Your task to perform on an android device: Show the shopping cart on walmart. Search for "usb-c to usb-b" on walmart, select the first entry, add it to the cart, then select checkout. Image 0: 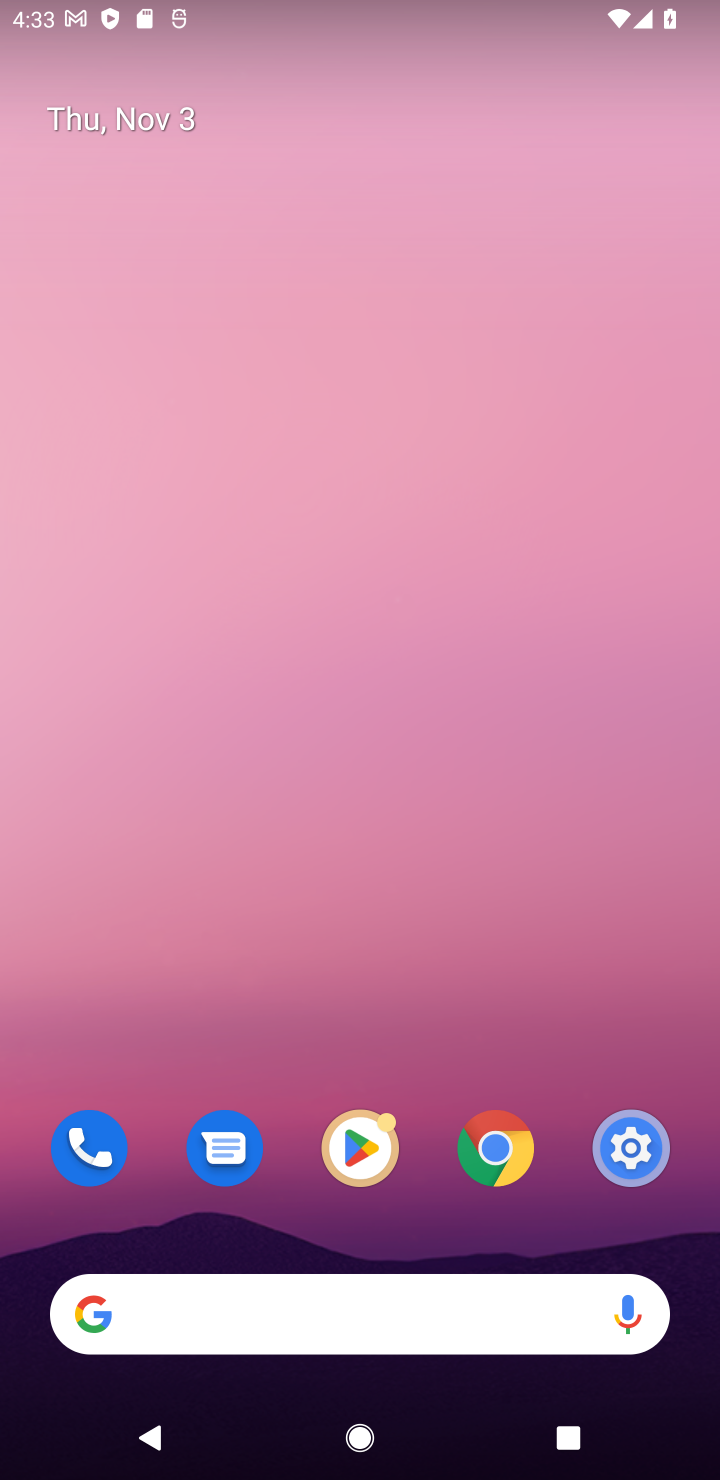
Step 0: click (307, 1338)
Your task to perform on an android device: Show the shopping cart on walmart. Search for "usb-c to usb-b" on walmart, select the first entry, add it to the cart, then select checkout. Image 1: 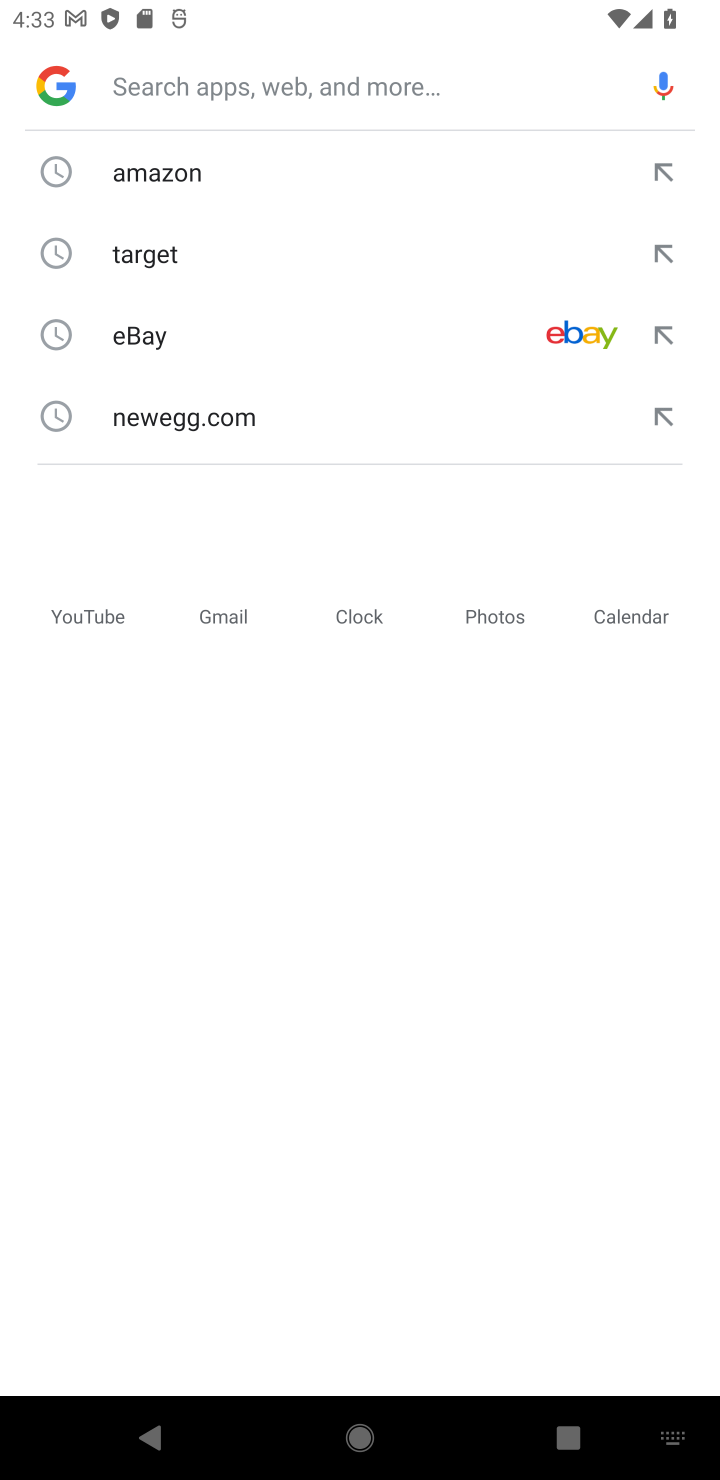
Step 1: type "walmart"
Your task to perform on an android device: Show the shopping cart on walmart. Search for "usb-c to usb-b" on walmart, select the first entry, add it to the cart, then select checkout. Image 2: 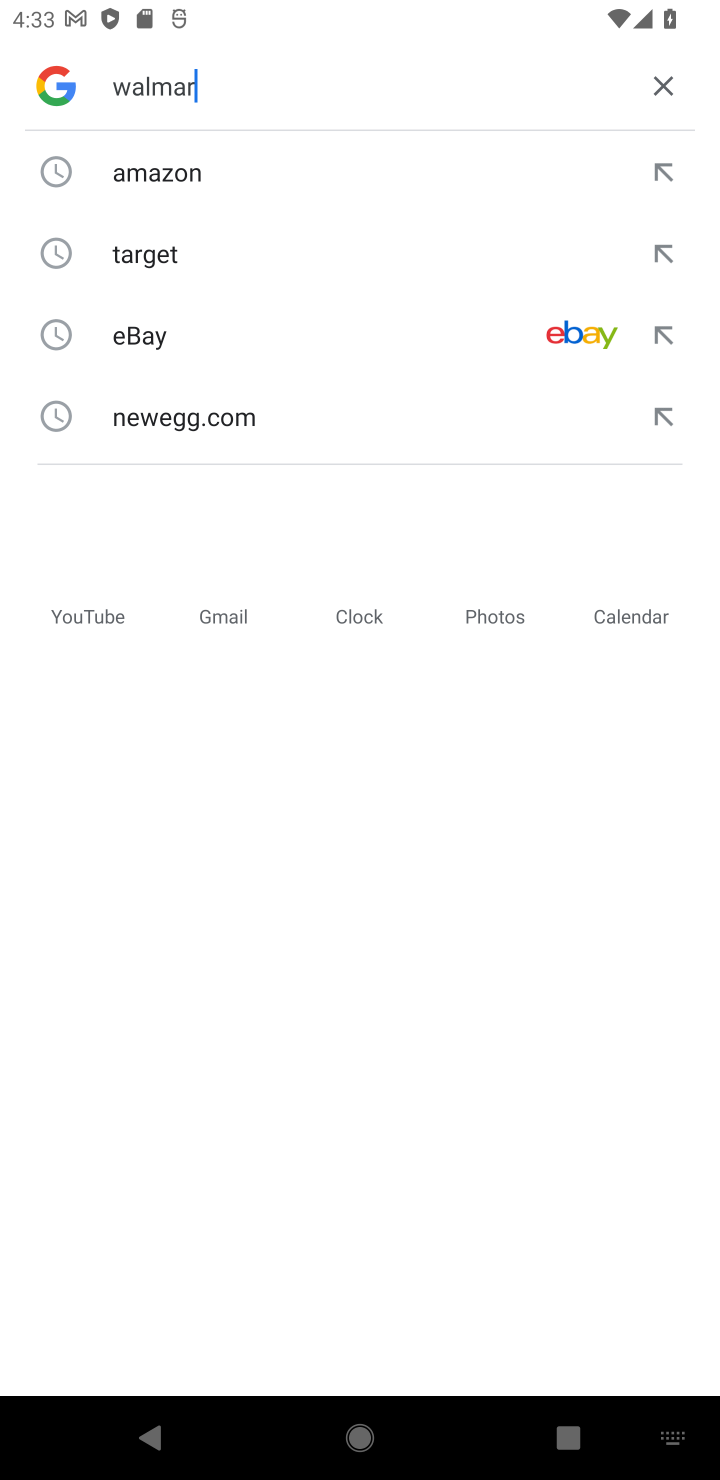
Step 2: type ""
Your task to perform on an android device: Show the shopping cart on walmart. Search for "usb-c to usb-b" on walmart, select the first entry, add it to the cart, then select checkout. Image 3: 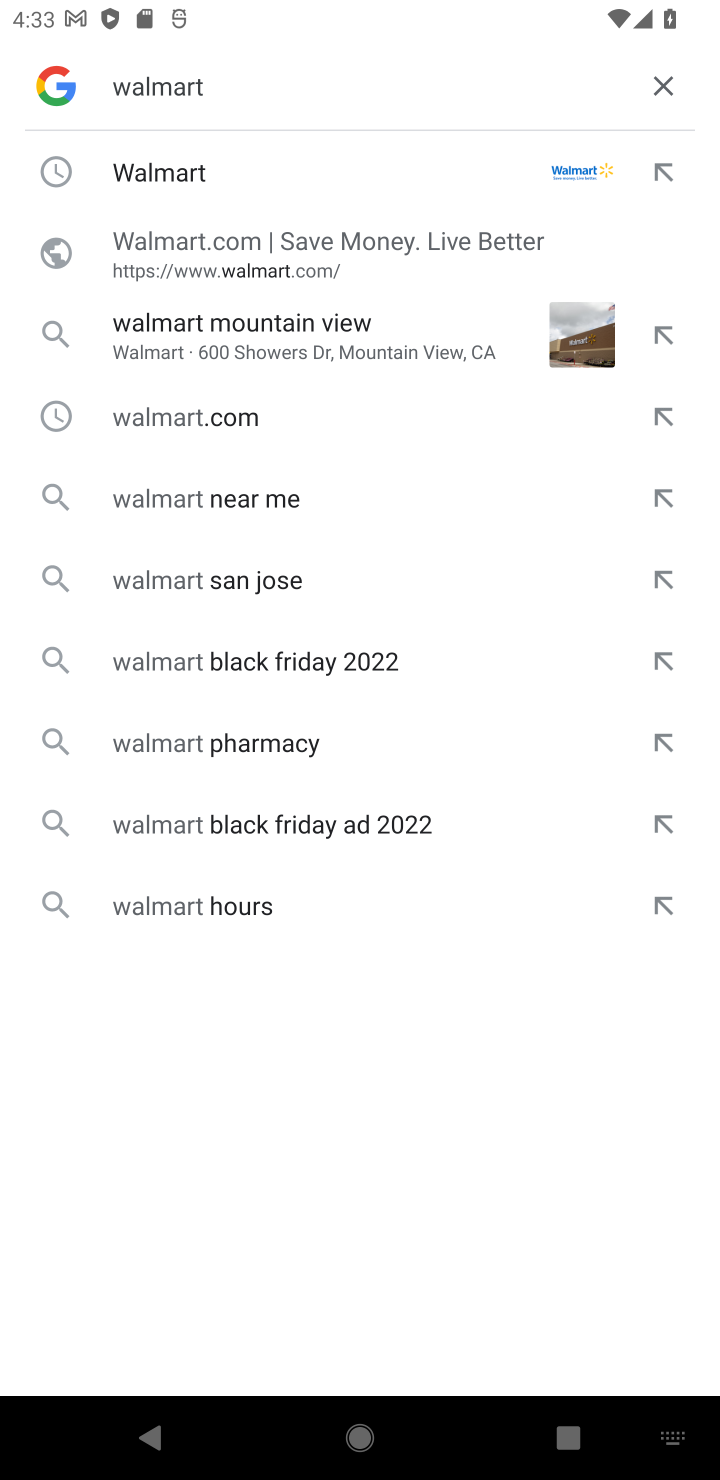
Step 3: click (296, 168)
Your task to perform on an android device: Show the shopping cart on walmart. Search for "usb-c to usb-b" on walmart, select the first entry, add it to the cart, then select checkout. Image 4: 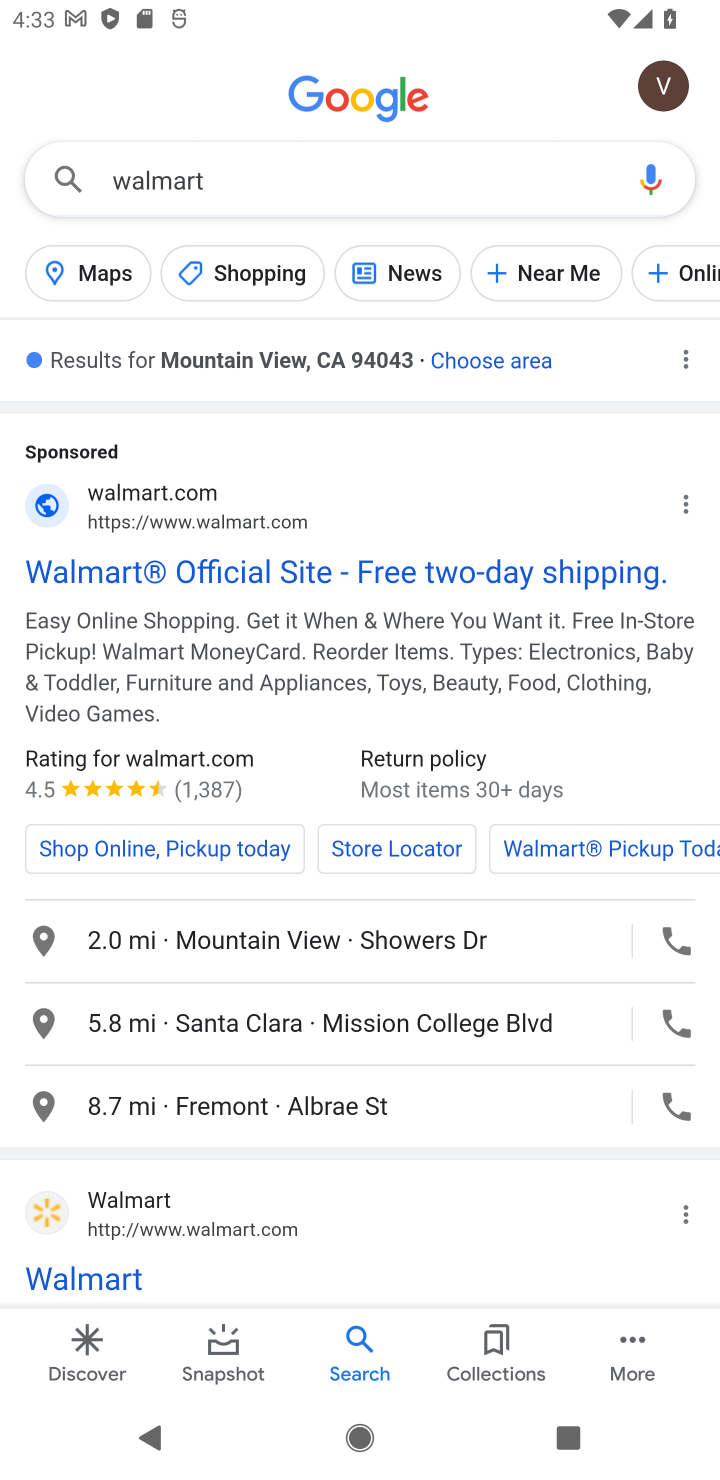
Step 4: click (209, 511)
Your task to perform on an android device: Show the shopping cart on walmart. Search for "usb-c to usb-b" on walmart, select the first entry, add it to the cart, then select checkout. Image 5: 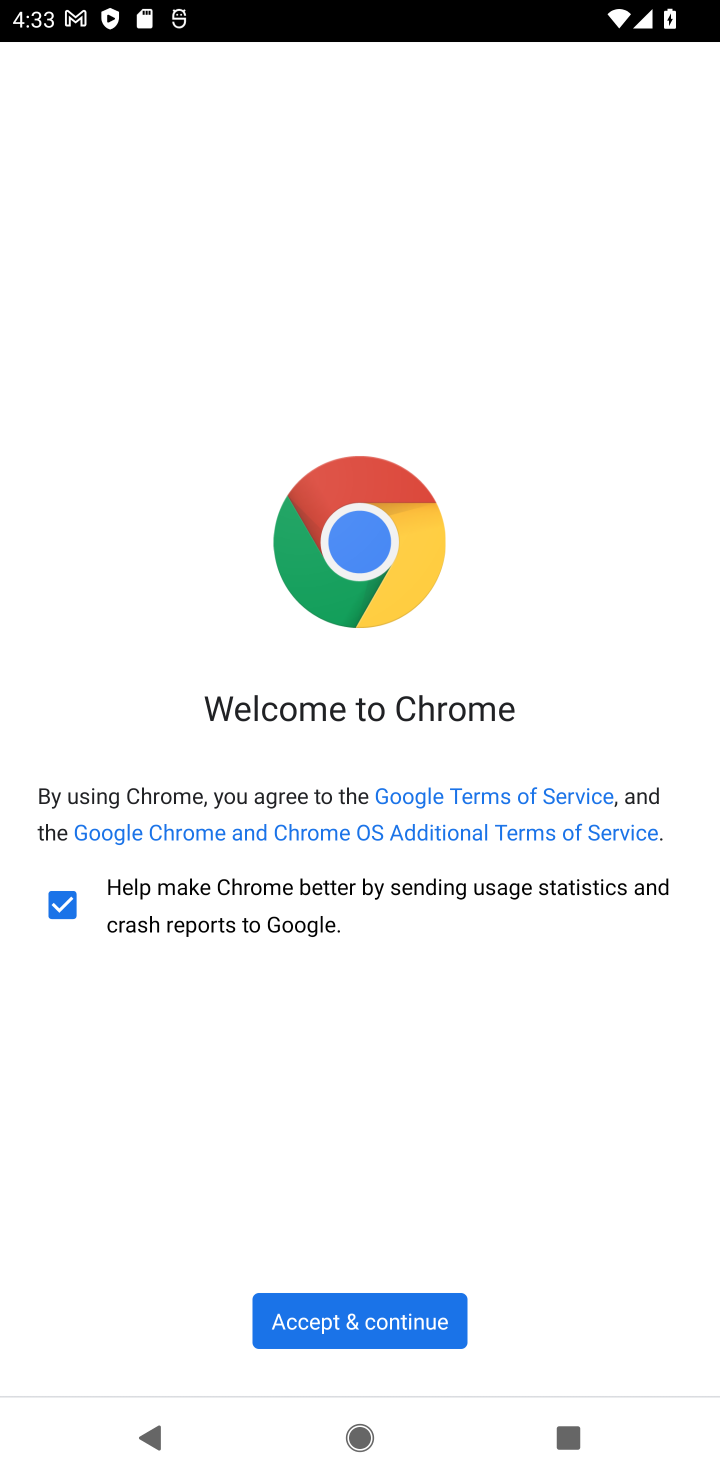
Step 5: click (409, 1328)
Your task to perform on an android device: Show the shopping cart on walmart. Search for "usb-c to usb-b" on walmart, select the first entry, add it to the cart, then select checkout. Image 6: 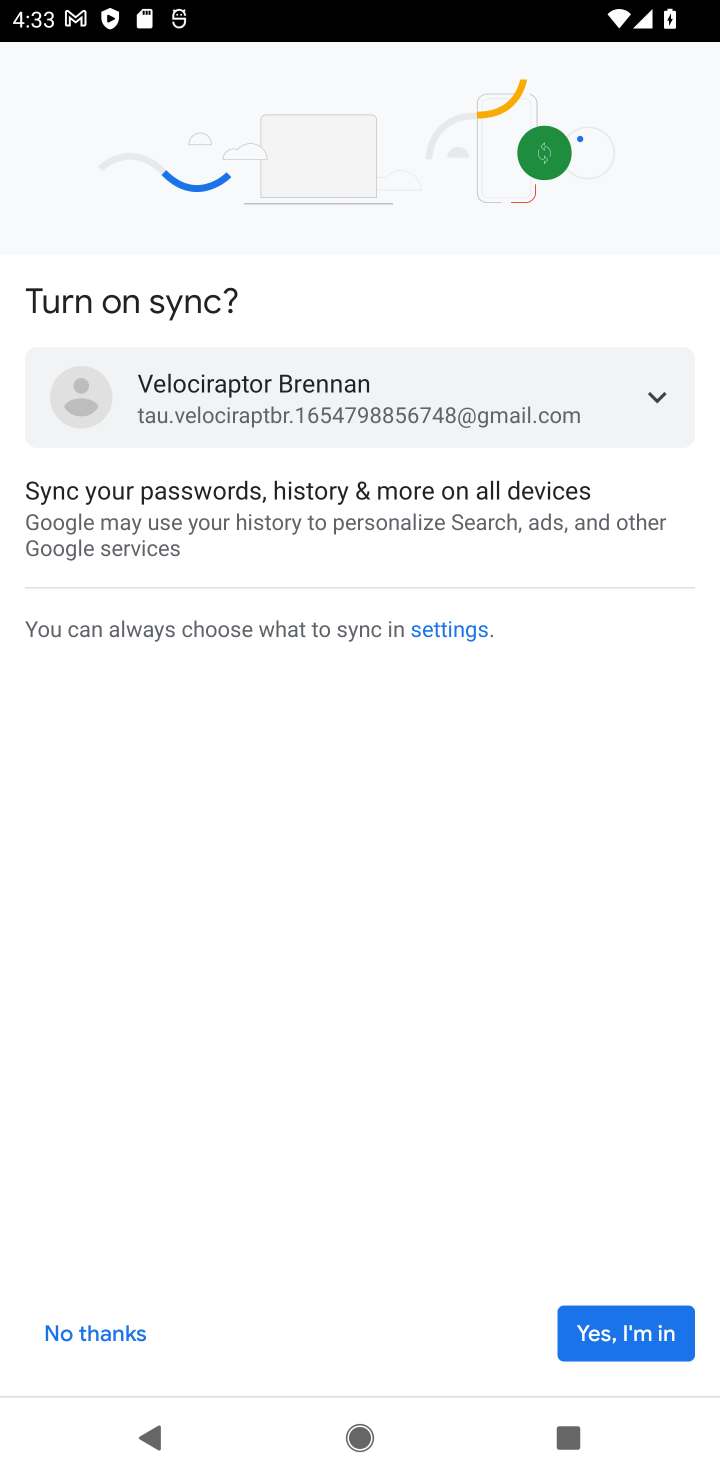
Step 6: click (618, 1319)
Your task to perform on an android device: Show the shopping cart on walmart. Search for "usb-c to usb-b" on walmart, select the first entry, add it to the cart, then select checkout. Image 7: 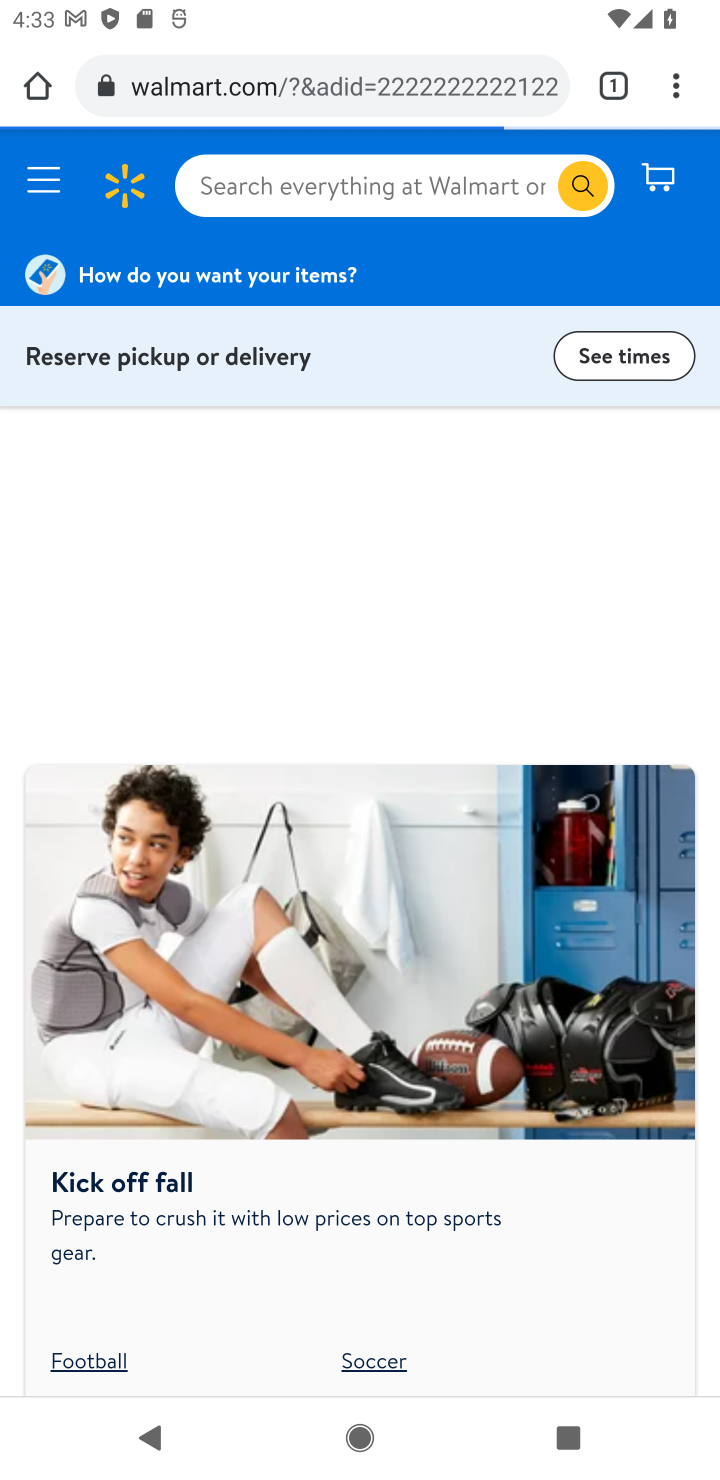
Step 7: click (251, 158)
Your task to perform on an android device: Show the shopping cart on walmart. Search for "usb-c to usb-b" on walmart, select the first entry, add it to the cart, then select checkout. Image 8: 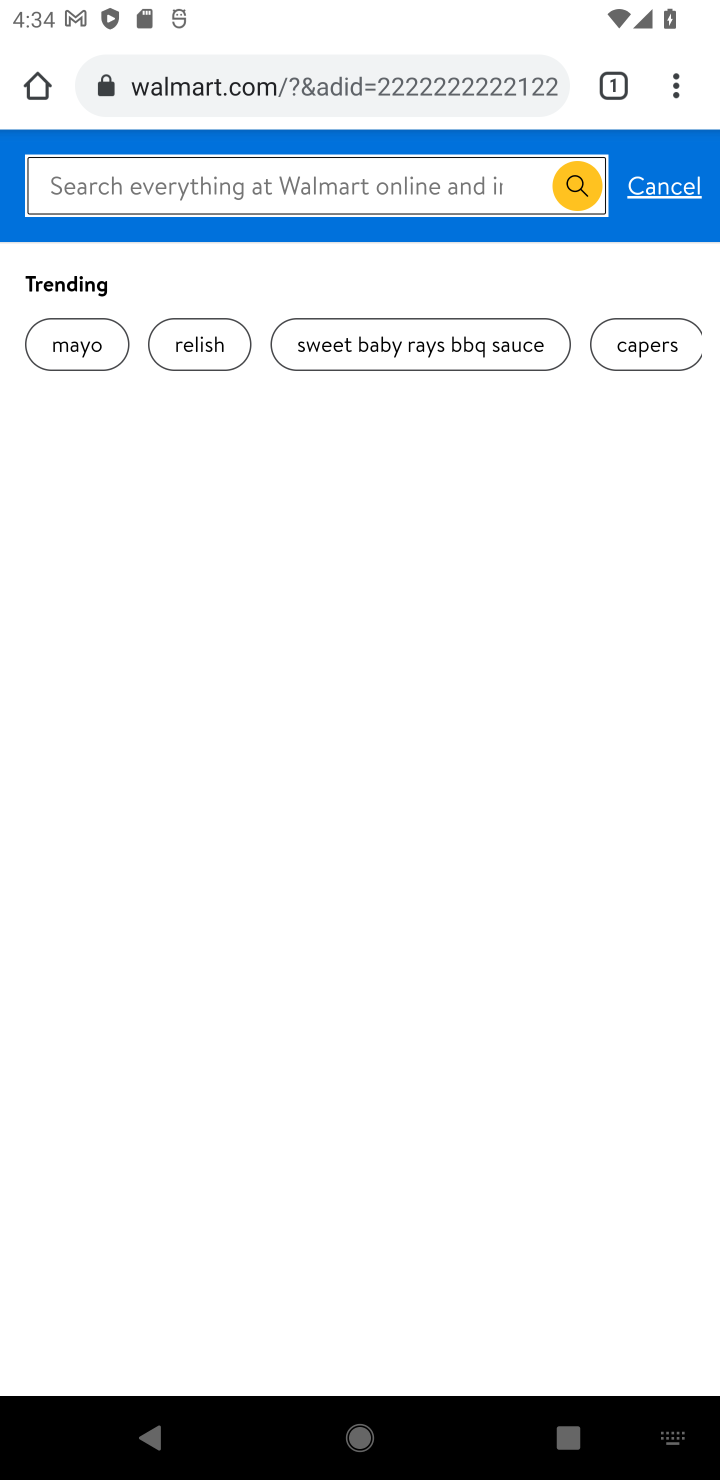
Step 8: type "usb-c to usb-b"
Your task to perform on an android device: Show the shopping cart on walmart. Search for "usb-c to usb-b" on walmart, select the first entry, add it to the cart, then select checkout. Image 9: 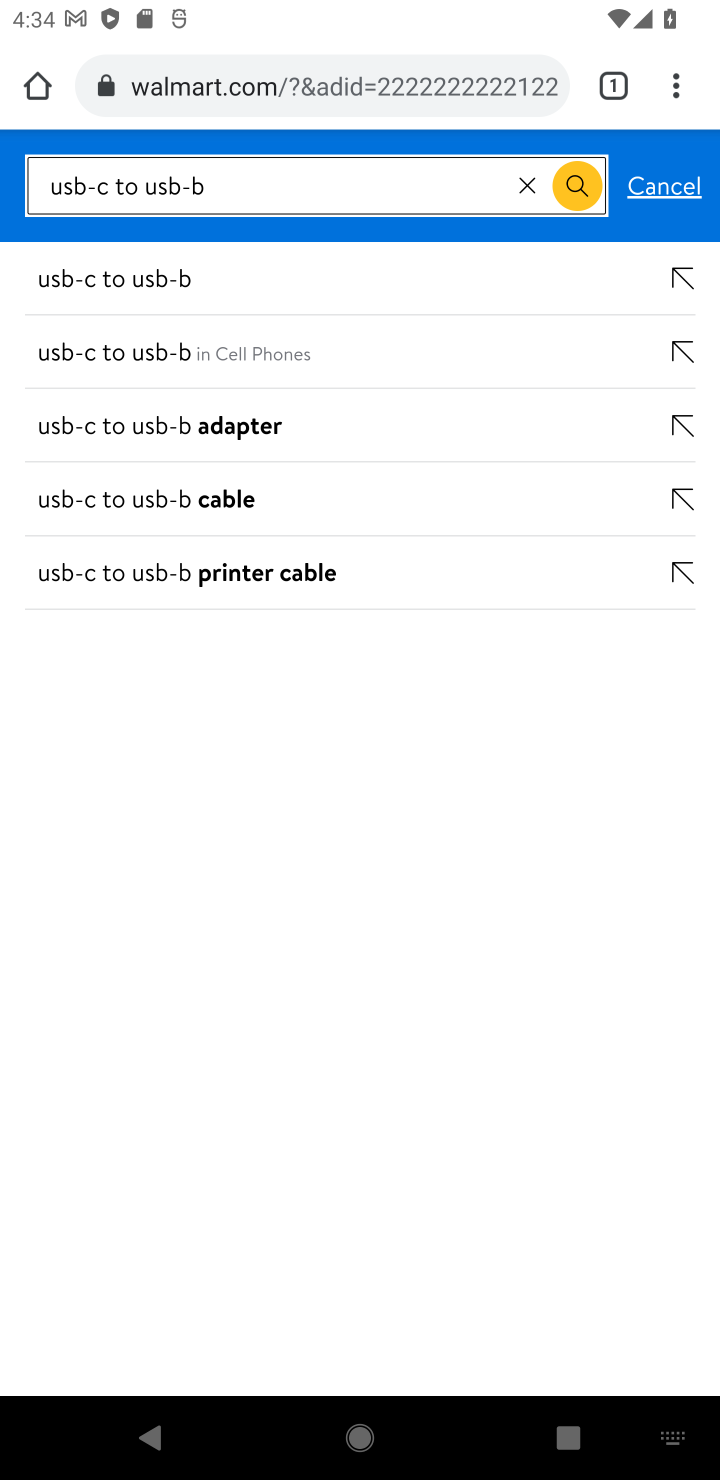
Step 9: click (179, 264)
Your task to perform on an android device: Show the shopping cart on walmart. Search for "usb-c to usb-b" on walmart, select the first entry, add it to the cart, then select checkout. Image 10: 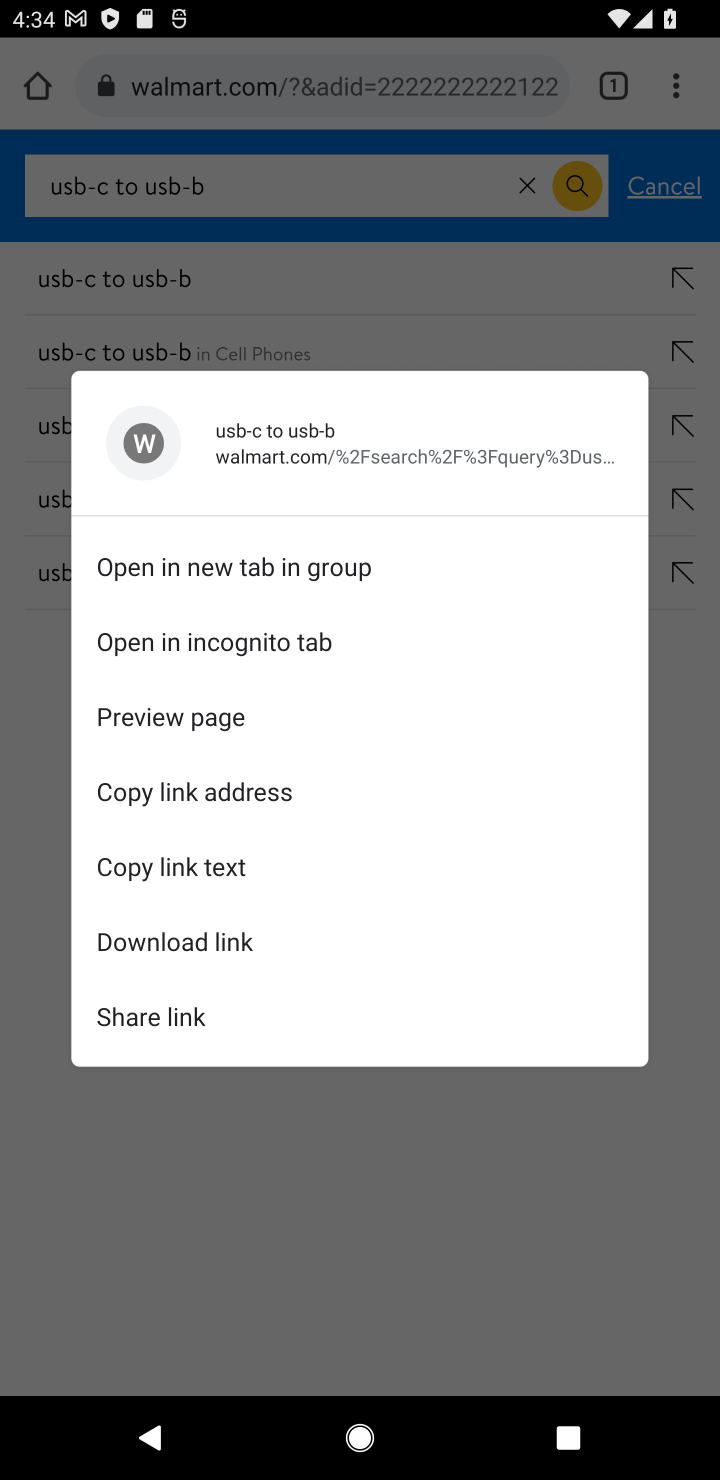
Step 10: click (511, 1301)
Your task to perform on an android device: Show the shopping cart on walmart. Search for "usb-c to usb-b" on walmart, select the first entry, add it to the cart, then select checkout. Image 11: 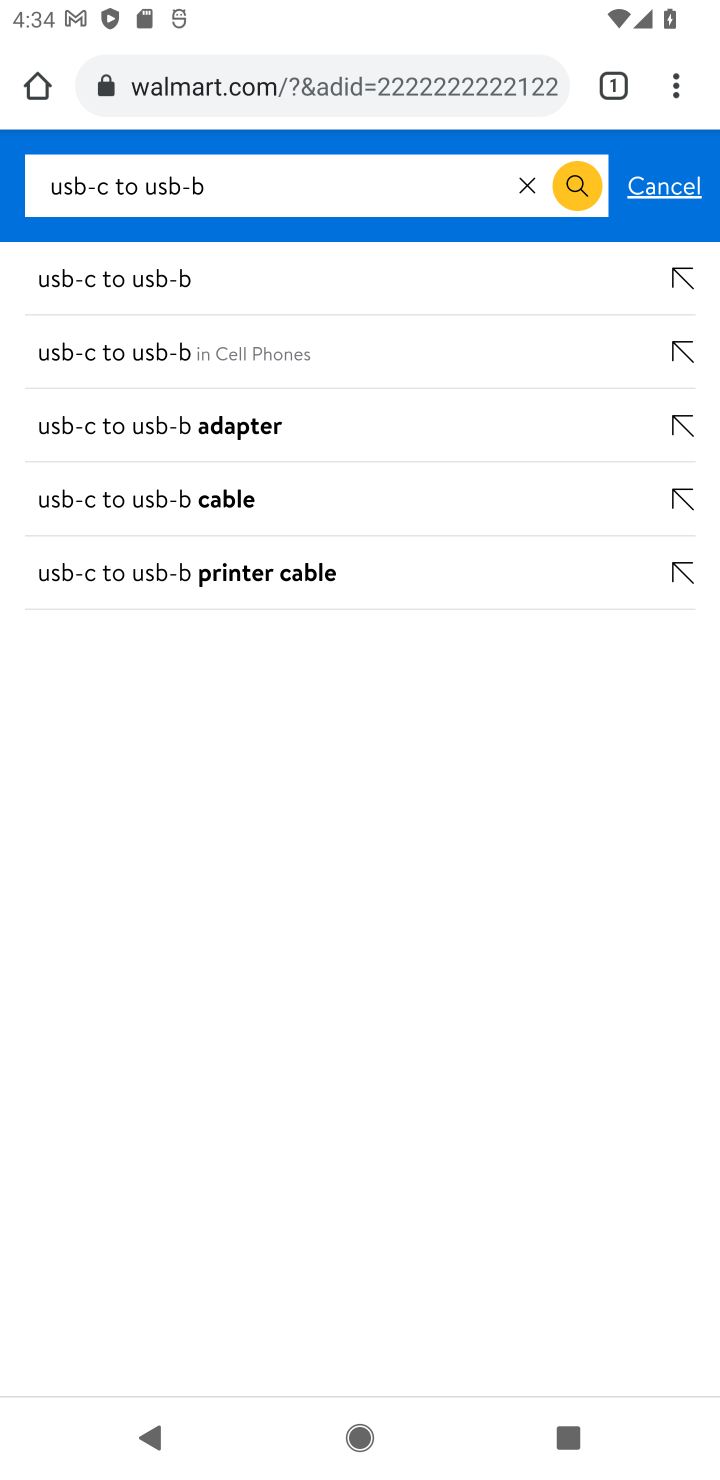
Step 11: click (93, 286)
Your task to perform on an android device: Show the shopping cart on walmart. Search for "usb-c to usb-b" on walmart, select the first entry, add it to the cart, then select checkout. Image 12: 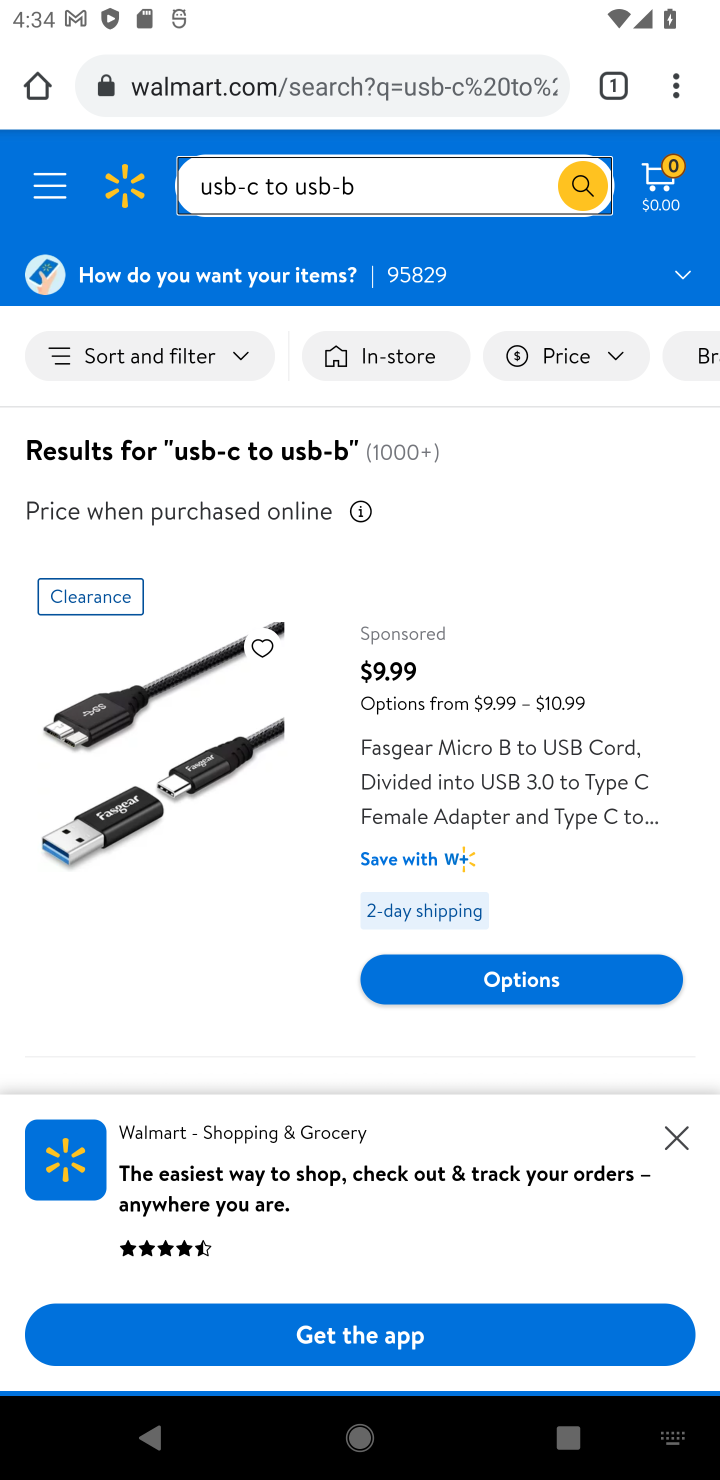
Step 12: drag from (518, 865) to (515, 627)
Your task to perform on an android device: Show the shopping cart on walmart. Search for "usb-c to usb-b" on walmart, select the first entry, add it to the cart, then select checkout. Image 13: 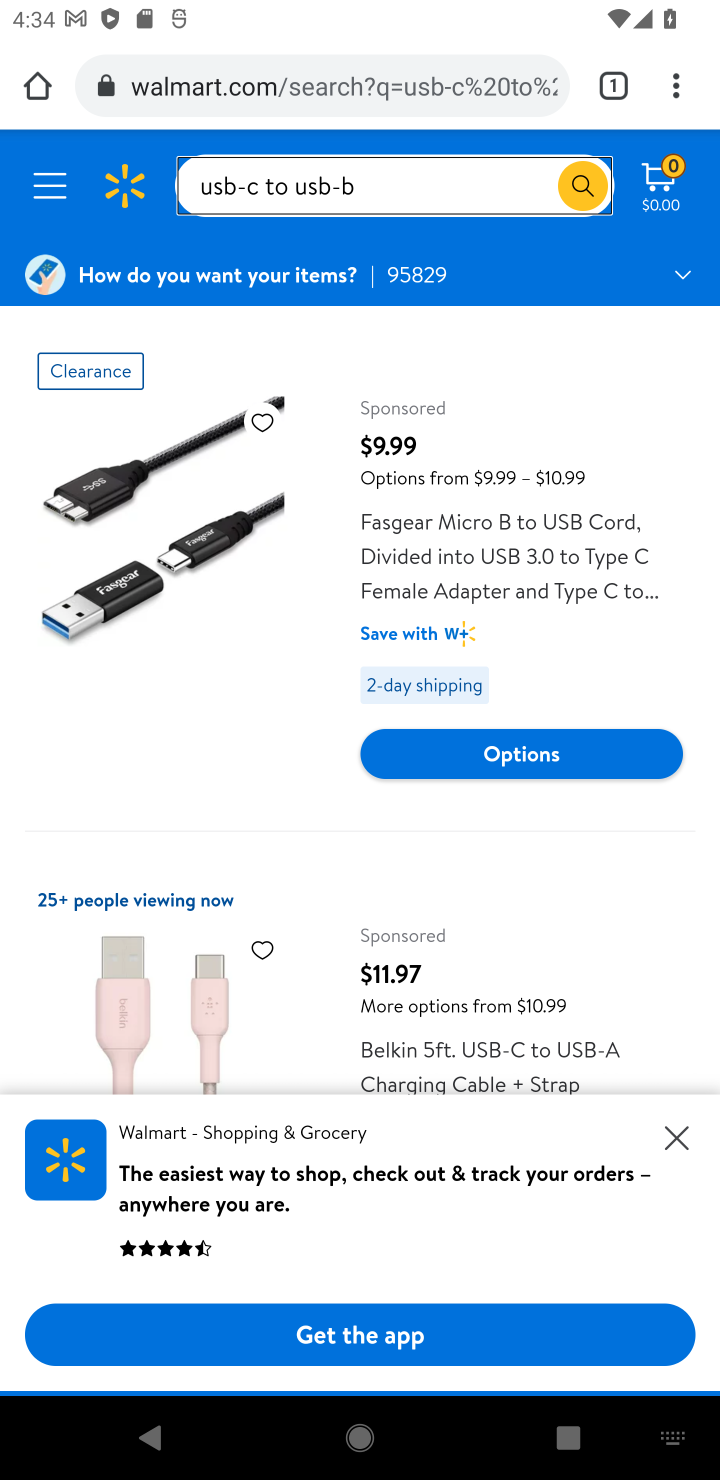
Step 13: click (552, 638)
Your task to perform on an android device: Show the shopping cart on walmart. Search for "usb-c to usb-b" on walmart, select the first entry, add it to the cart, then select checkout. Image 14: 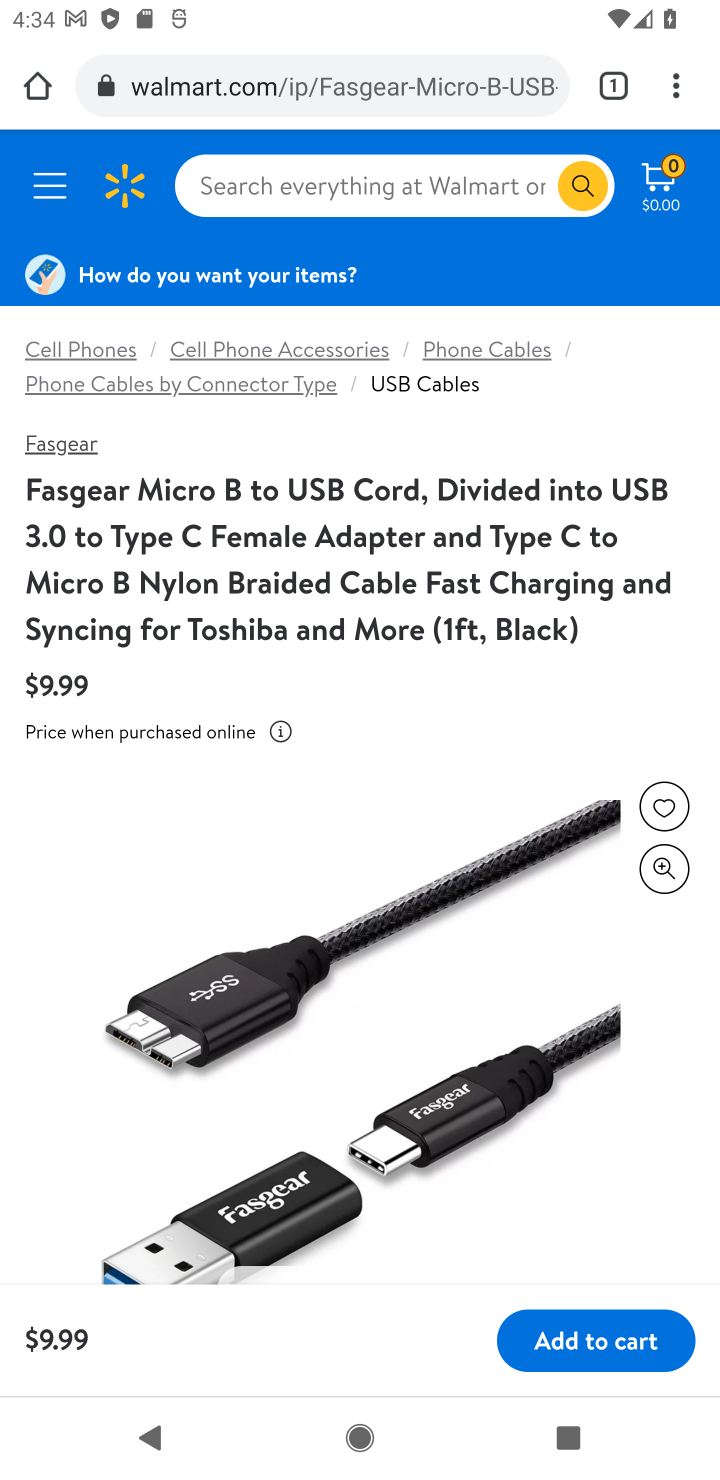
Step 14: drag from (445, 1152) to (445, 914)
Your task to perform on an android device: Show the shopping cart on walmart. Search for "usb-c to usb-b" on walmart, select the first entry, add it to the cart, then select checkout. Image 15: 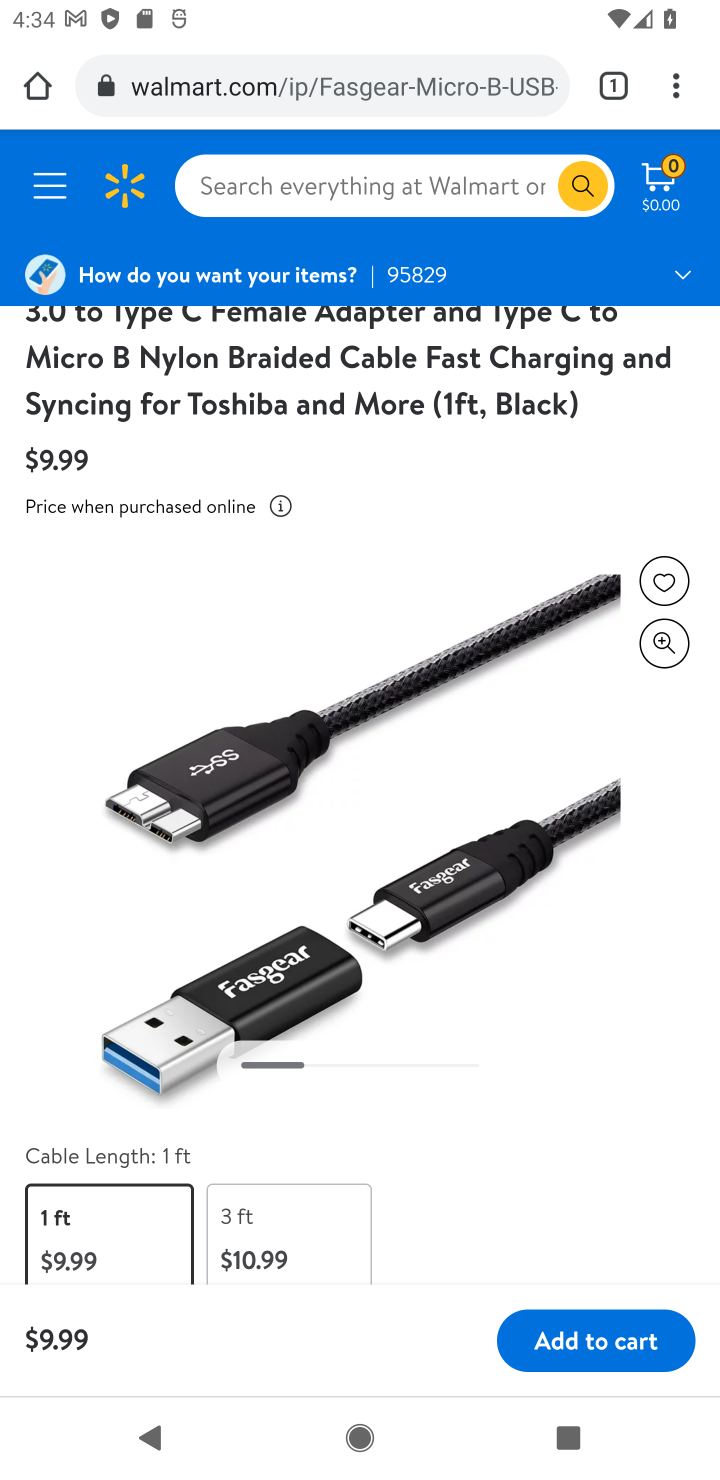
Step 15: click (593, 1343)
Your task to perform on an android device: Show the shopping cart on walmart. Search for "usb-c to usb-b" on walmart, select the first entry, add it to the cart, then select checkout. Image 16: 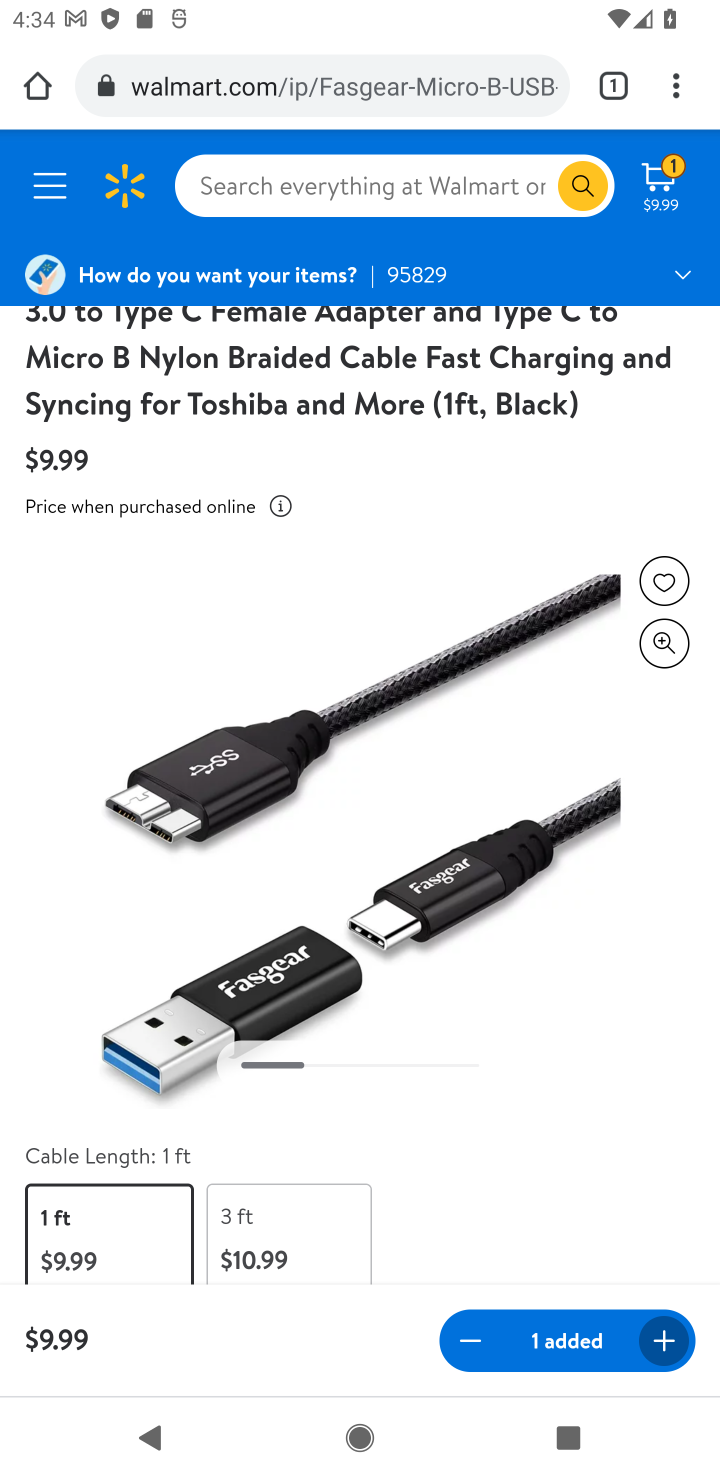
Step 16: click (662, 187)
Your task to perform on an android device: Show the shopping cart on walmart. Search for "usb-c to usb-b" on walmart, select the first entry, add it to the cart, then select checkout. Image 17: 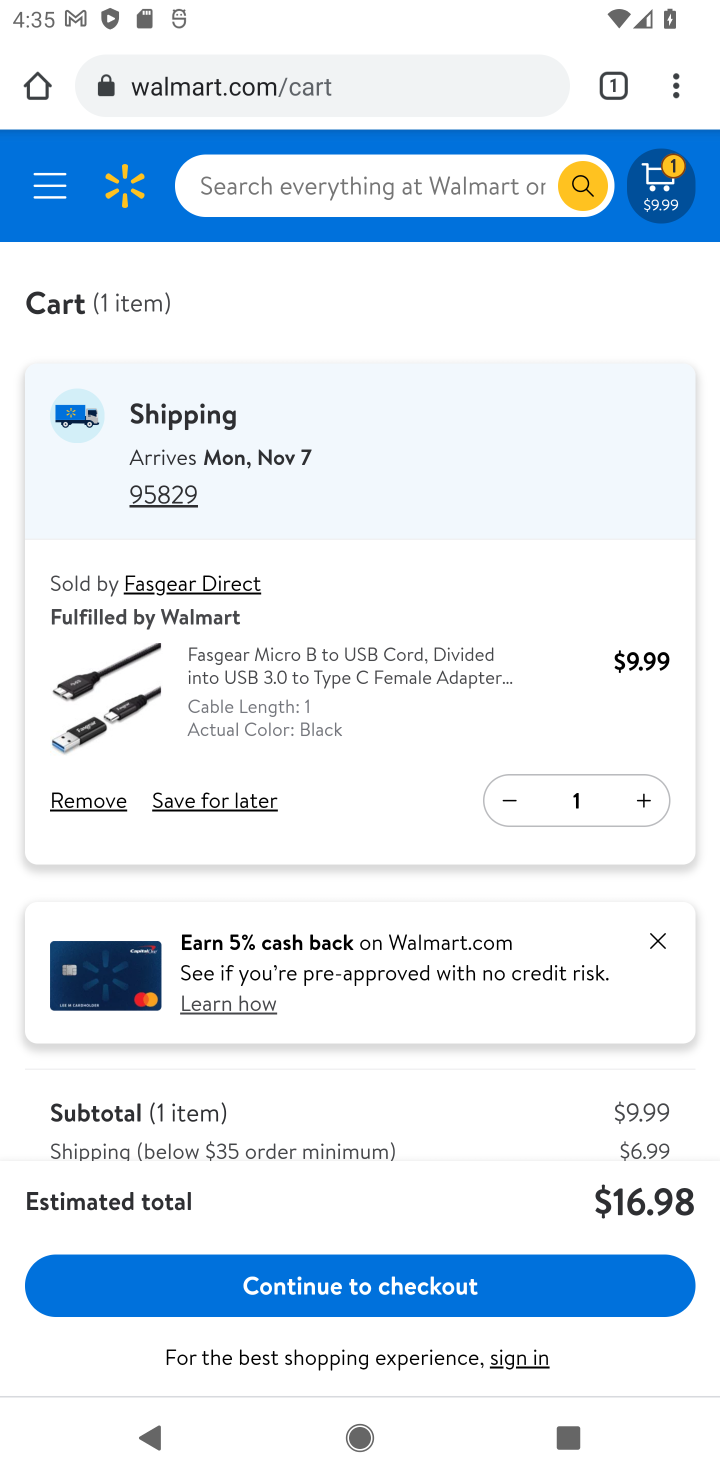
Step 17: click (455, 1272)
Your task to perform on an android device: Show the shopping cart on walmart. Search for "usb-c to usb-b" on walmart, select the first entry, add it to the cart, then select checkout. Image 18: 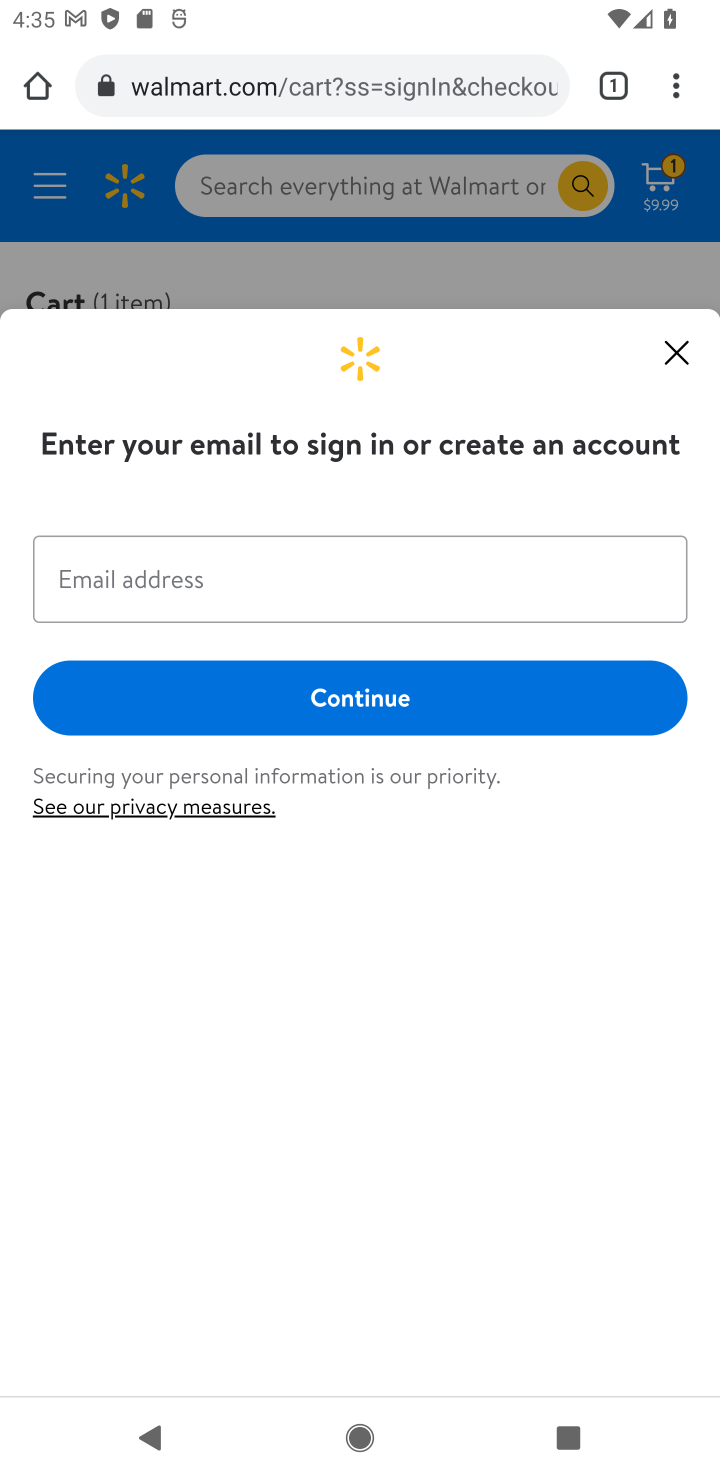
Step 18: click (670, 346)
Your task to perform on an android device: Show the shopping cart on walmart. Search for "usb-c to usb-b" on walmart, select the first entry, add it to the cart, then select checkout. Image 19: 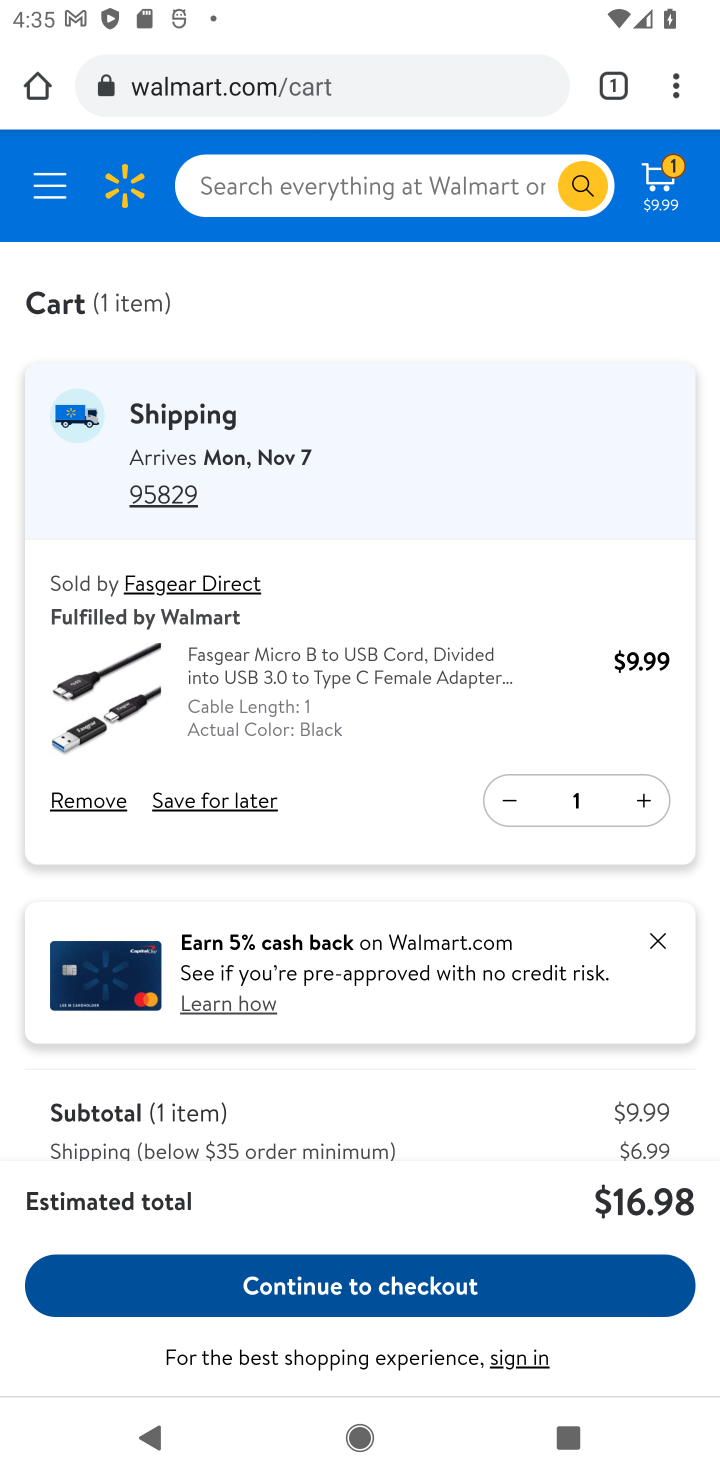
Step 19: click (353, 1299)
Your task to perform on an android device: Show the shopping cart on walmart. Search for "usb-c to usb-b" on walmart, select the first entry, add it to the cart, then select checkout. Image 20: 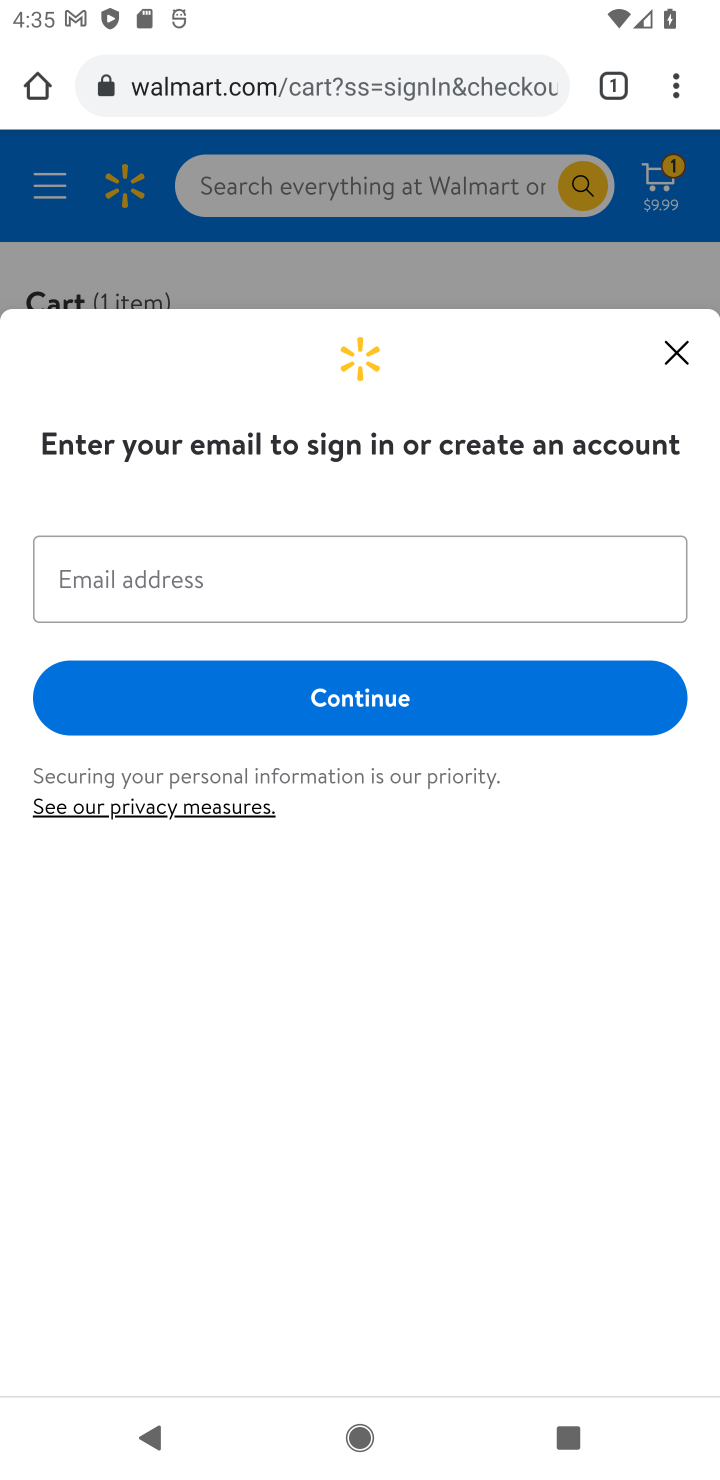
Step 20: task complete